Your task to perform on an android device: change the clock display to analog Image 0: 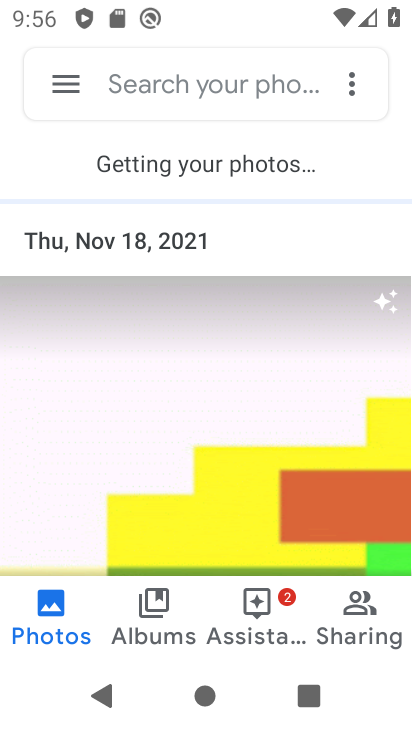
Step 0: press home button
Your task to perform on an android device: change the clock display to analog Image 1: 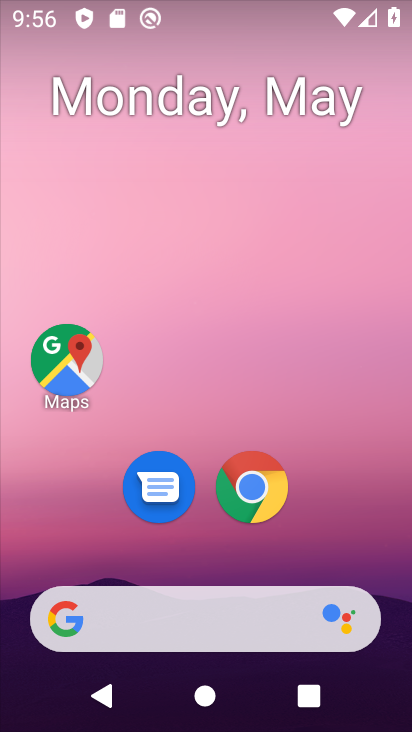
Step 1: drag from (232, 546) to (219, 1)
Your task to perform on an android device: change the clock display to analog Image 2: 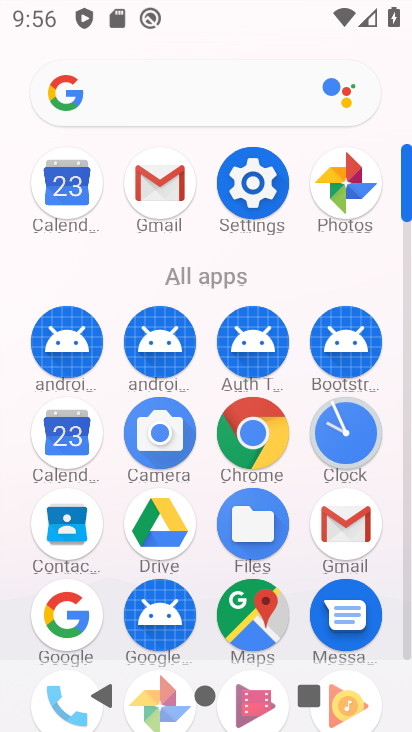
Step 2: click (338, 452)
Your task to perform on an android device: change the clock display to analog Image 3: 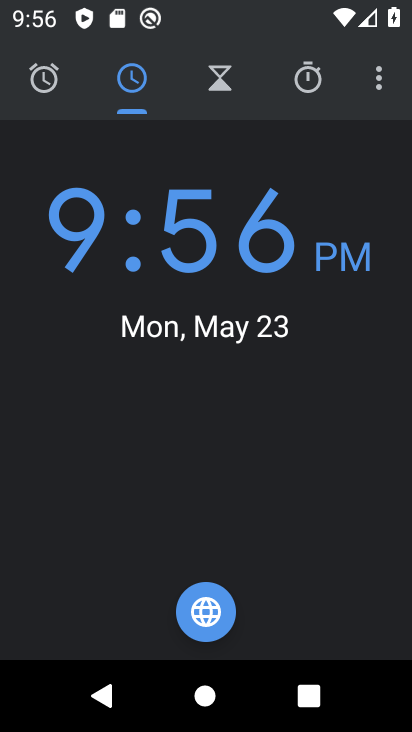
Step 3: click (377, 70)
Your task to perform on an android device: change the clock display to analog Image 4: 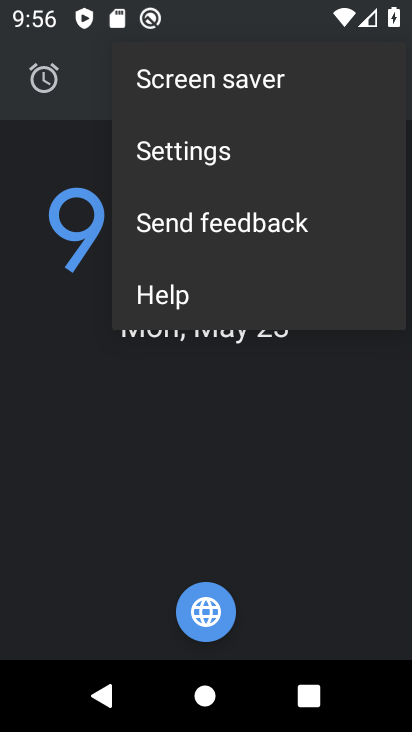
Step 4: click (211, 162)
Your task to perform on an android device: change the clock display to analog Image 5: 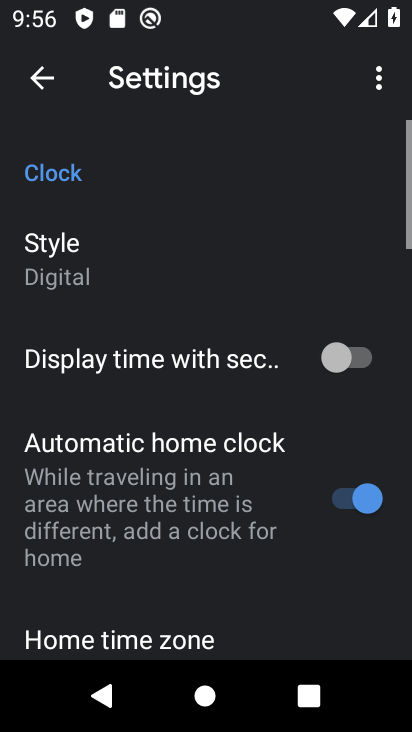
Step 5: click (84, 267)
Your task to perform on an android device: change the clock display to analog Image 6: 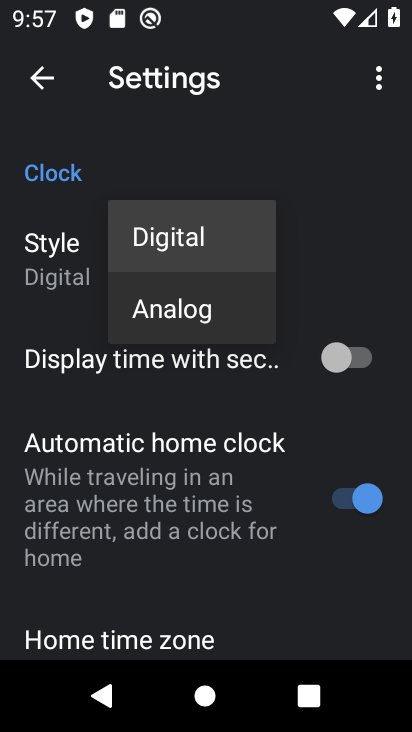
Step 6: click (160, 317)
Your task to perform on an android device: change the clock display to analog Image 7: 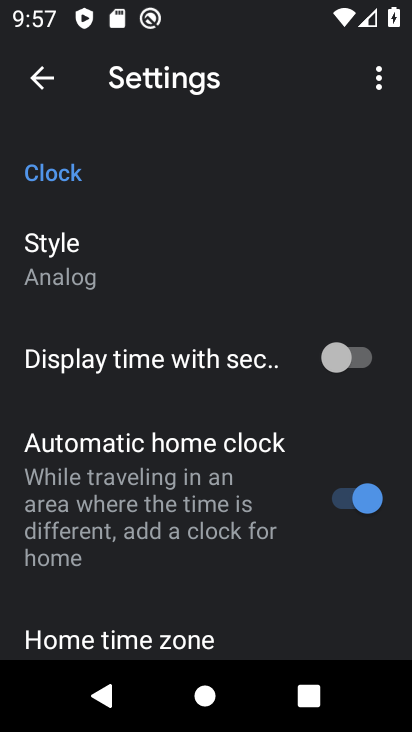
Step 7: task complete